Your task to perform on an android device: turn off smart reply in the gmail app Image 0: 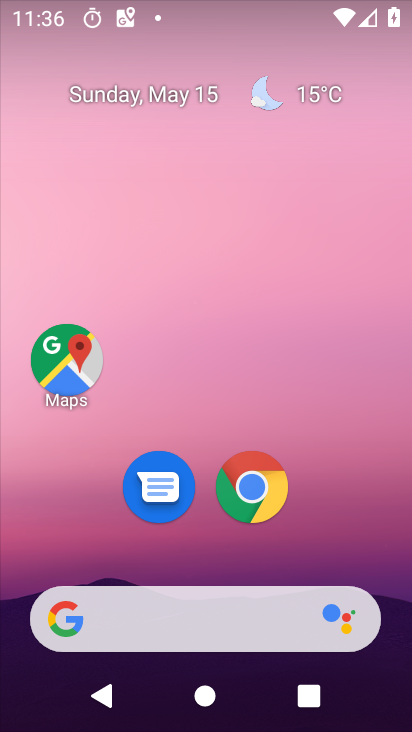
Step 0: drag from (358, 437) to (355, 292)
Your task to perform on an android device: turn off smart reply in the gmail app Image 1: 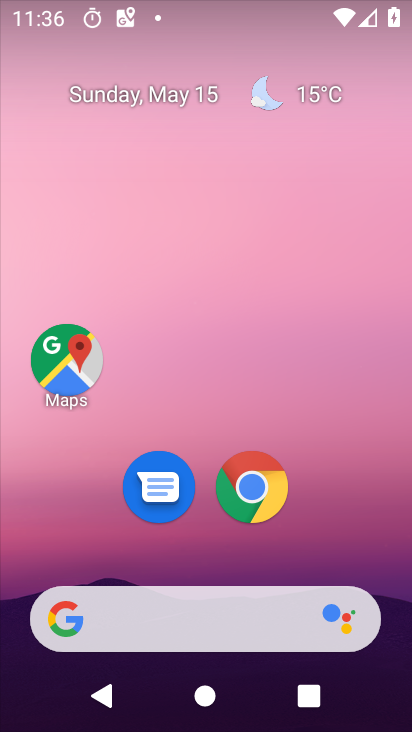
Step 1: drag from (395, 647) to (403, 191)
Your task to perform on an android device: turn off smart reply in the gmail app Image 2: 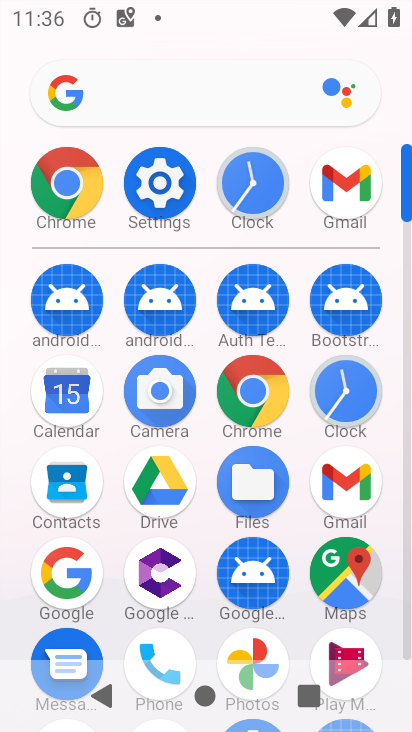
Step 2: click (344, 476)
Your task to perform on an android device: turn off smart reply in the gmail app Image 3: 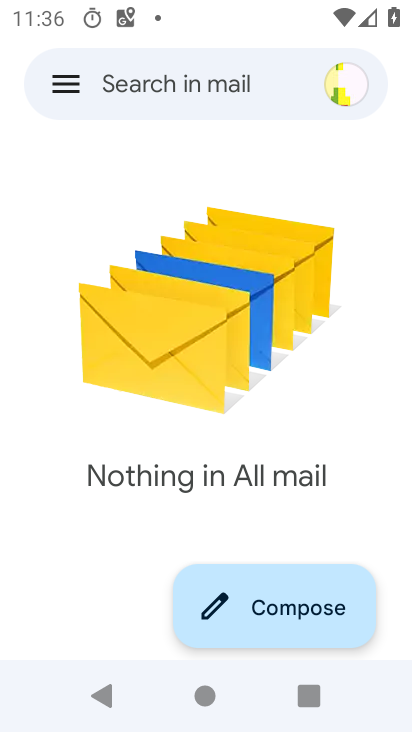
Step 3: click (68, 84)
Your task to perform on an android device: turn off smart reply in the gmail app Image 4: 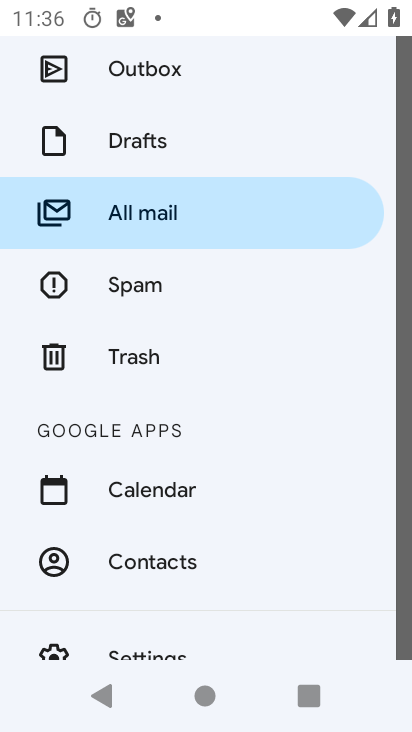
Step 4: drag from (304, 559) to (300, 245)
Your task to perform on an android device: turn off smart reply in the gmail app Image 5: 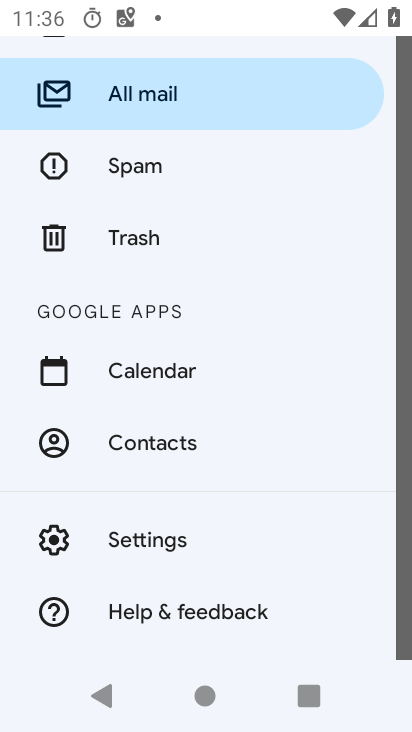
Step 5: drag from (304, 604) to (328, 374)
Your task to perform on an android device: turn off smart reply in the gmail app Image 6: 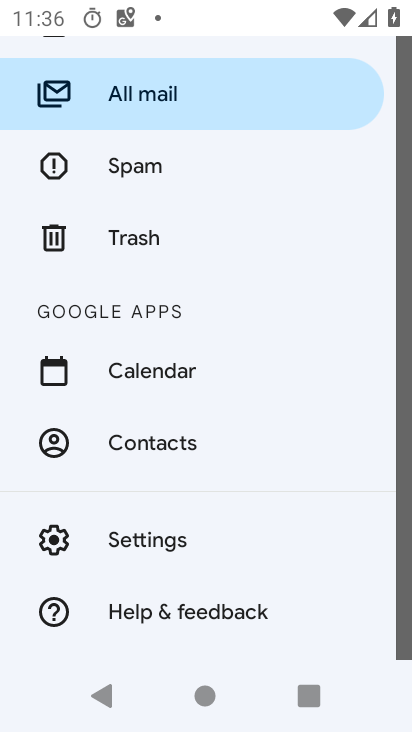
Step 6: click (123, 537)
Your task to perform on an android device: turn off smart reply in the gmail app Image 7: 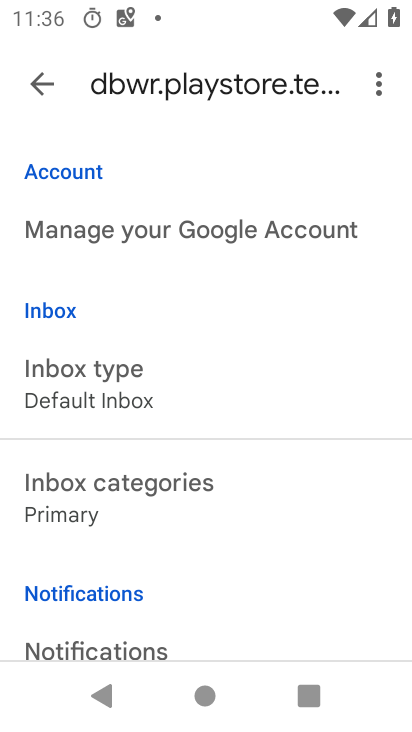
Step 7: drag from (326, 618) to (329, 382)
Your task to perform on an android device: turn off smart reply in the gmail app Image 8: 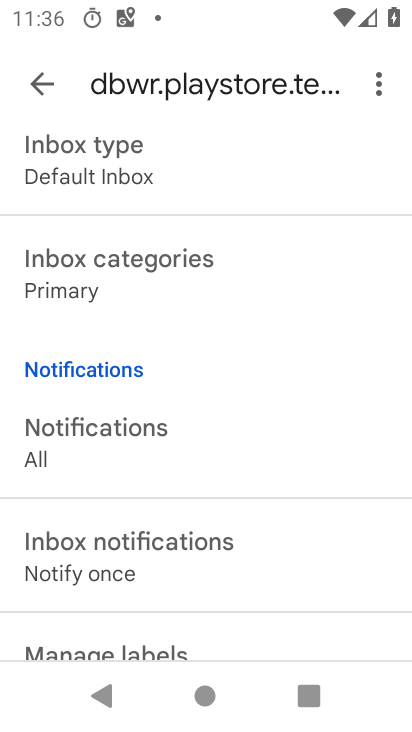
Step 8: drag from (329, 597) to (335, 336)
Your task to perform on an android device: turn off smart reply in the gmail app Image 9: 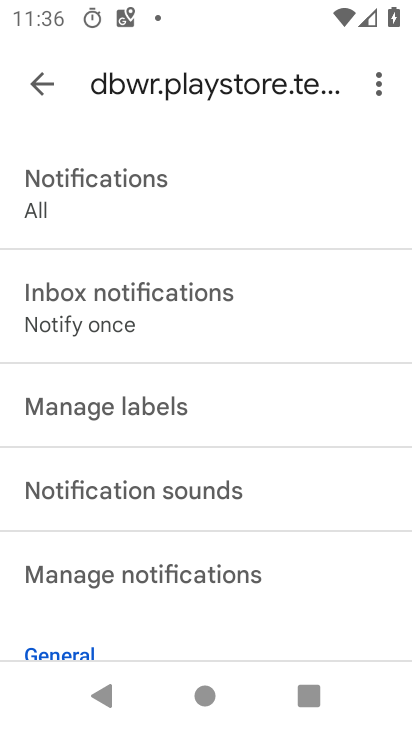
Step 9: drag from (334, 638) to (297, 360)
Your task to perform on an android device: turn off smart reply in the gmail app Image 10: 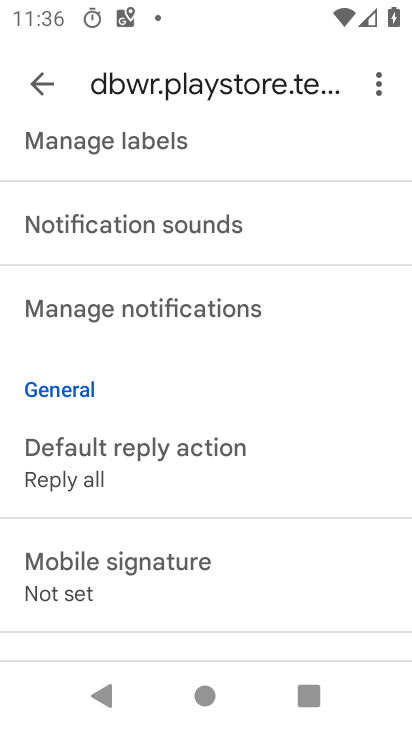
Step 10: drag from (316, 602) to (324, 388)
Your task to perform on an android device: turn off smart reply in the gmail app Image 11: 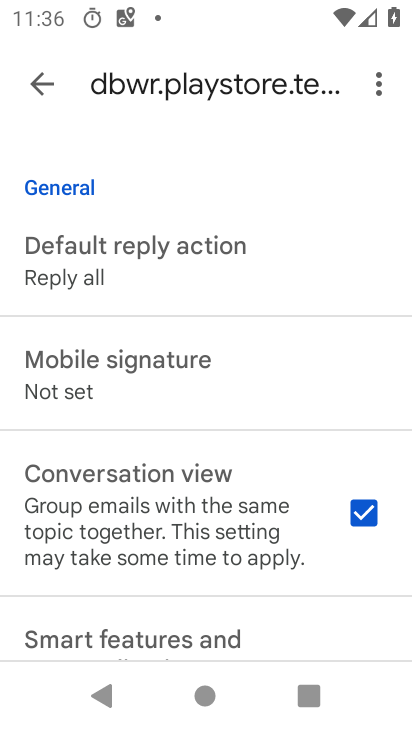
Step 11: drag from (295, 271) to (293, 507)
Your task to perform on an android device: turn off smart reply in the gmail app Image 12: 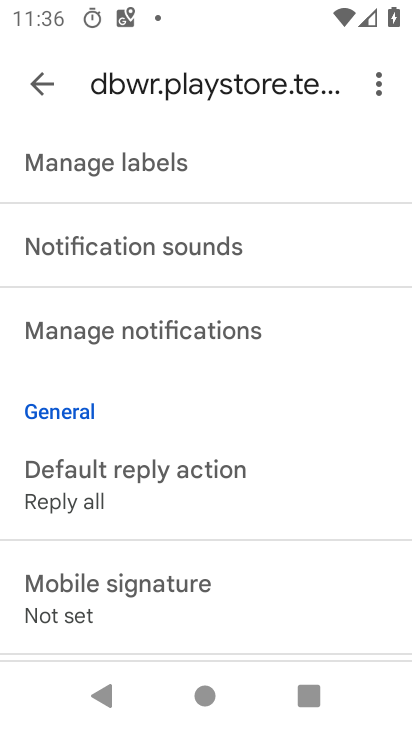
Step 12: drag from (307, 597) to (305, 285)
Your task to perform on an android device: turn off smart reply in the gmail app Image 13: 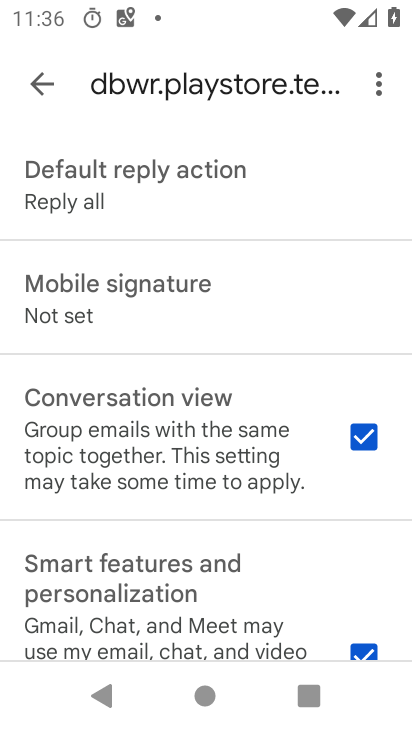
Step 13: drag from (248, 607) to (274, 309)
Your task to perform on an android device: turn off smart reply in the gmail app Image 14: 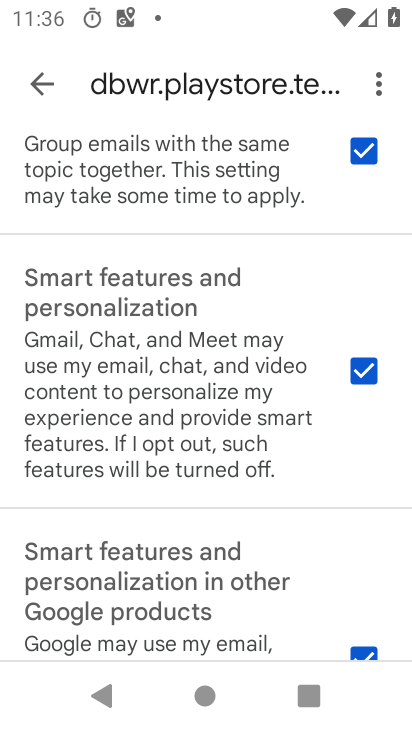
Step 14: drag from (250, 450) to (253, 348)
Your task to perform on an android device: turn off smart reply in the gmail app Image 15: 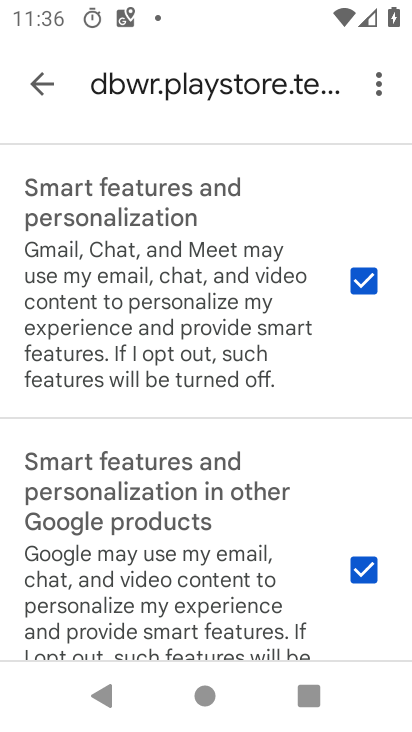
Step 15: click (245, 358)
Your task to perform on an android device: turn off smart reply in the gmail app Image 16: 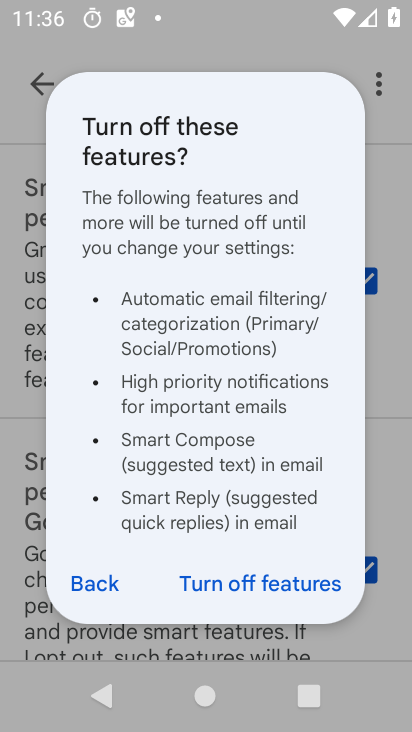
Step 16: click (72, 584)
Your task to perform on an android device: turn off smart reply in the gmail app Image 17: 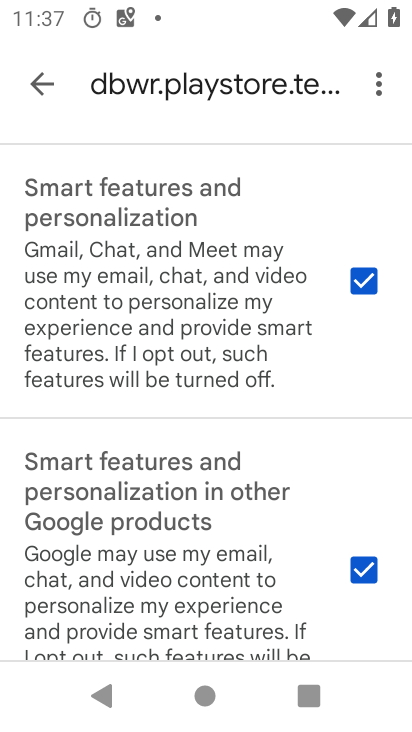
Step 17: drag from (154, 253) to (150, 537)
Your task to perform on an android device: turn off smart reply in the gmail app Image 18: 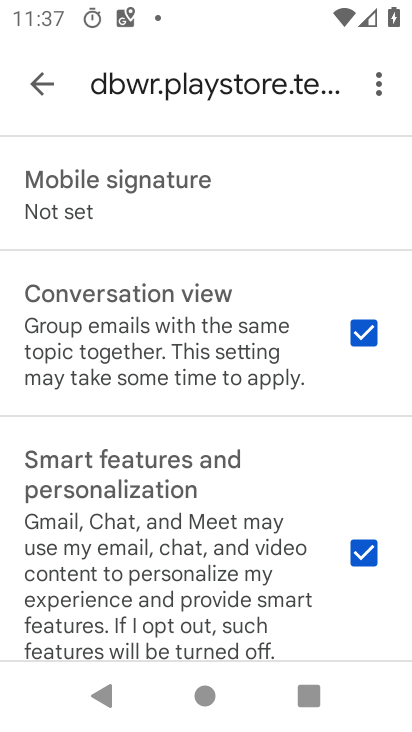
Step 18: drag from (138, 208) to (141, 465)
Your task to perform on an android device: turn off smart reply in the gmail app Image 19: 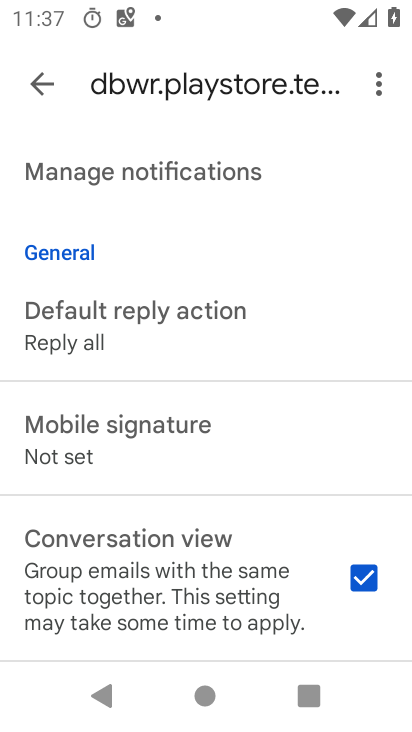
Step 19: drag from (147, 227) to (163, 431)
Your task to perform on an android device: turn off smart reply in the gmail app Image 20: 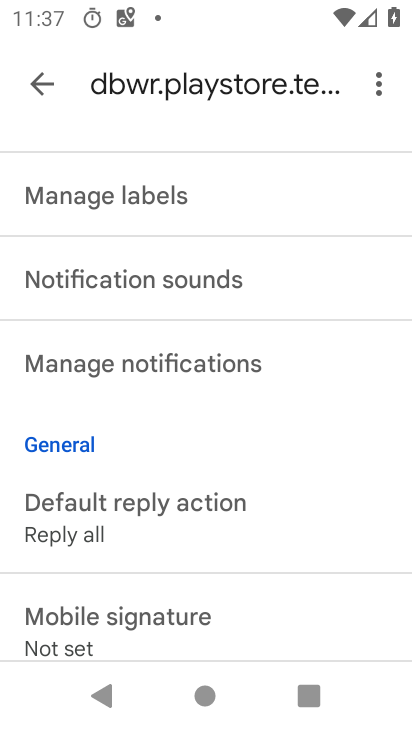
Step 20: click (27, 76)
Your task to perform on an android device: turn off smart reply in the gmail app Image 21: 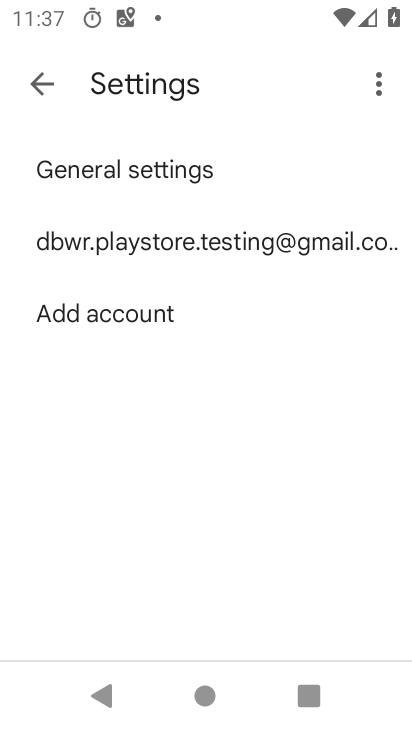
Step 21: click (115, 244)
Your task to perform on an android device: turn off smart reply in the gmail app Image 22: 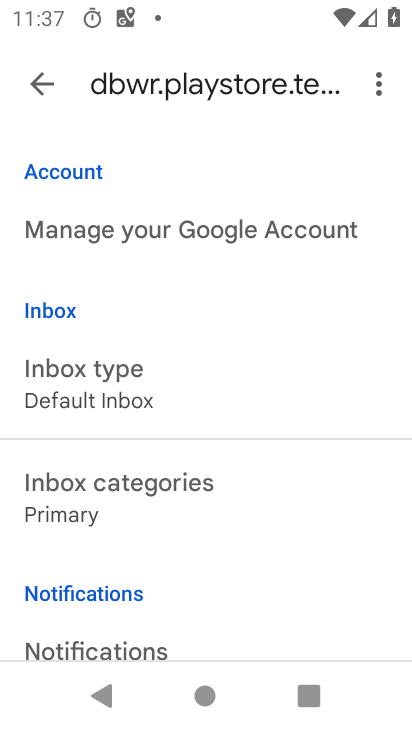
Step 22: task complete